Your task to perform on an android device: Open ESPN.com Image 0: 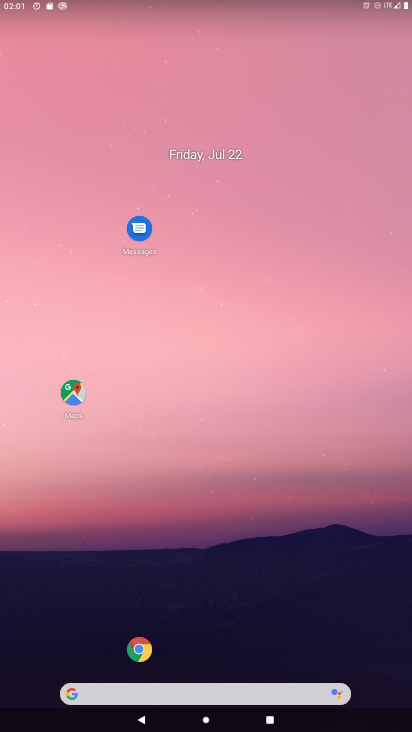
Step 0: click (120, 692)
Your task to perform on an android device: Open ESPN.com Image 1: 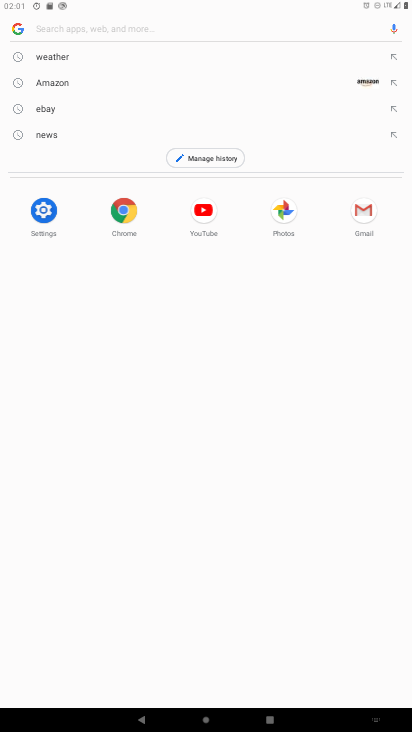
Step 1: type "ESPN.com"
Your task to perform on an android device: Open ESPN.com Image 2: 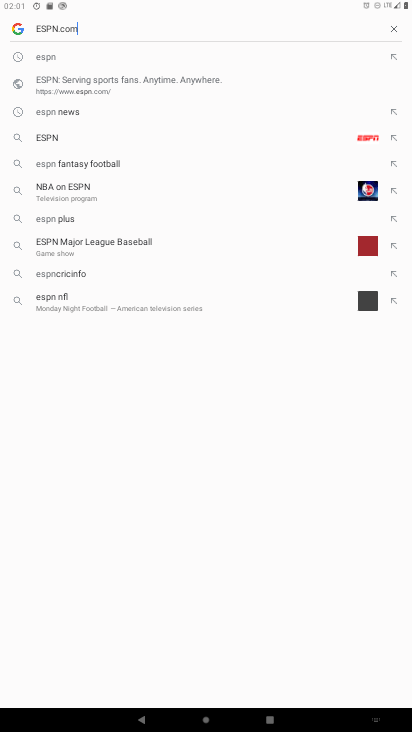
Step 2: type ""
Your task to perform on an android device: Open ESPN.com Image 3: 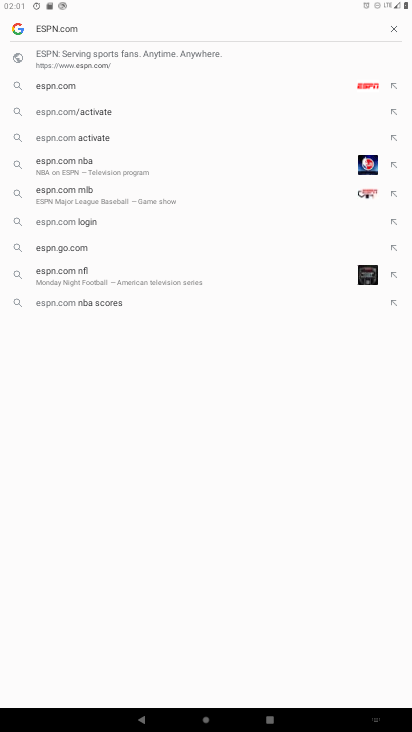
Step 3: click (85, 71)
Your task to perform on an android device: Open ESPN.com Image 4: 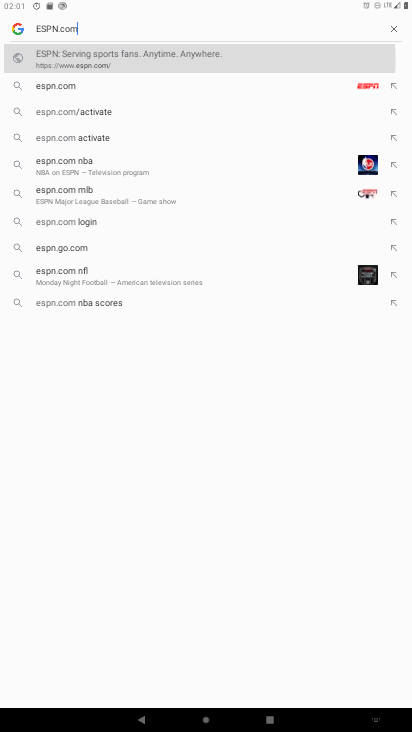
Step 4: click (87, 64)
Your task to perform on an android device: Open ESPN.com Image 5: 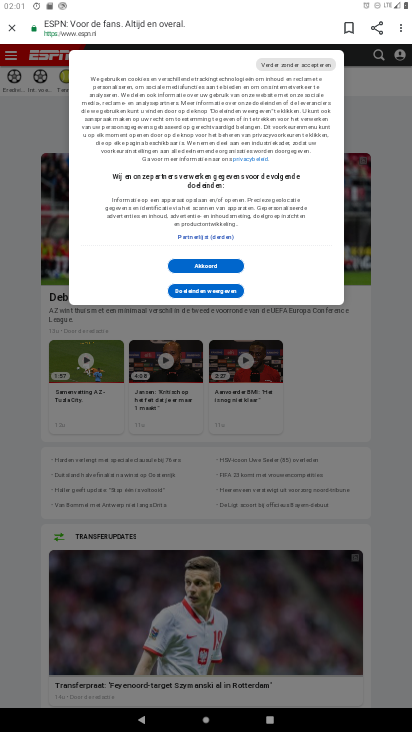
Step 5: task complete